Your task to perform on an android device: choose inbox layout in the gmail app Image 0: 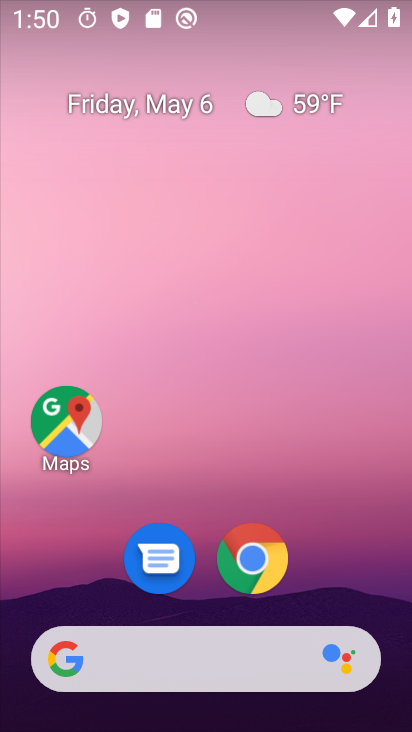
Step 0: drag from (179, 726) to (171, 211)
Your task to perform on an android device: choose inbox layout in the gmail app Image 1: 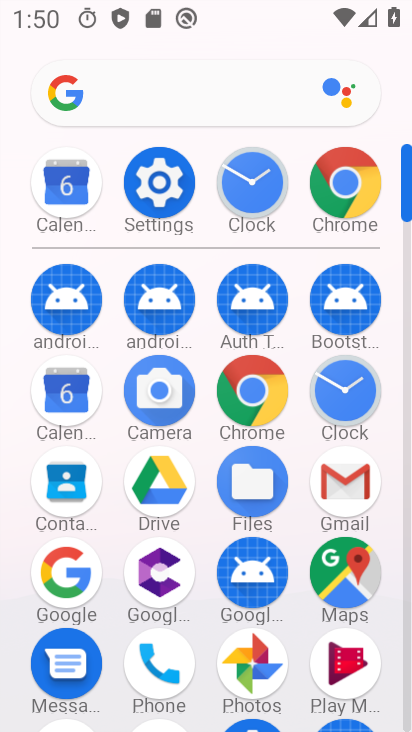
Step 1: click (343, 469)
Your task to perform on an android device: choose inbox layout in the gmail app Image 2: 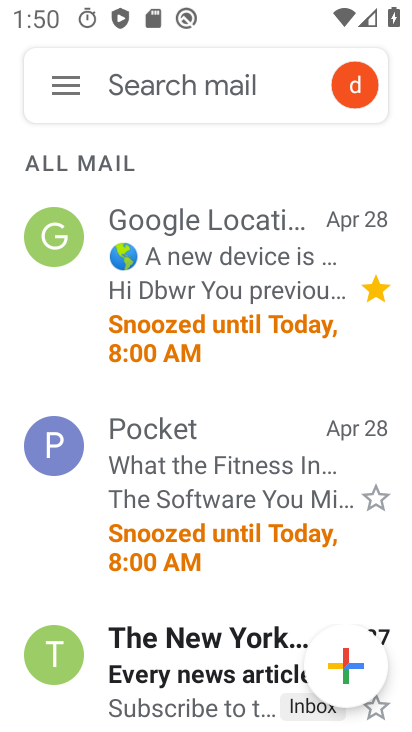
Step 2: click (68, 87)
Your task to perform on an android device: choose inbox layout in the gmail app Image 3: 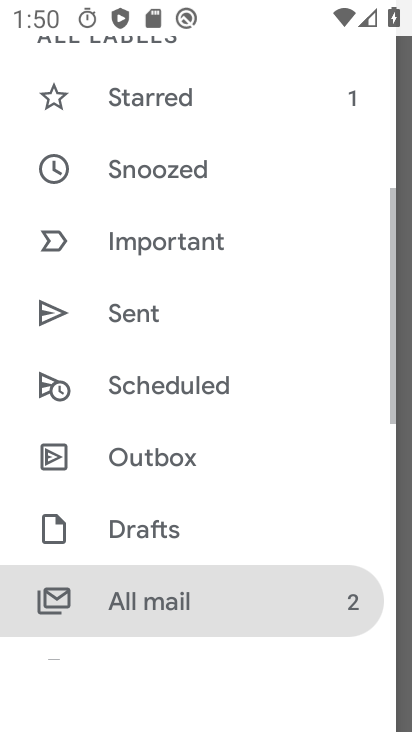
Step 3: drag from (148, 624) to (152, 186)
Your task to perform on an android device: choose inbox layout in the gmail app Image 4: 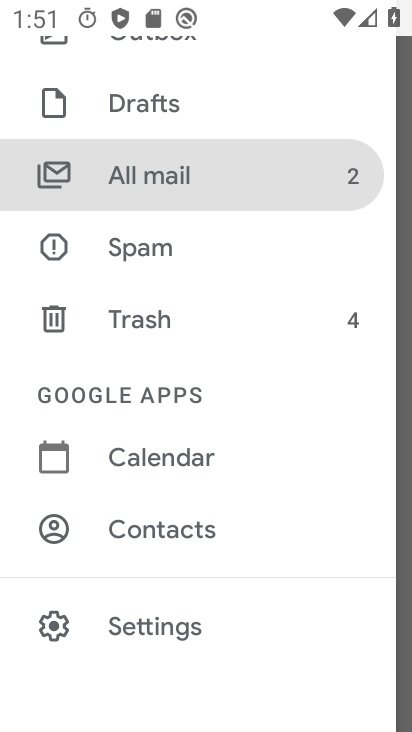
Step 4: click (160, 626)
Your task to perform on an android device: choose inbox layout in the gmail app Image 5: 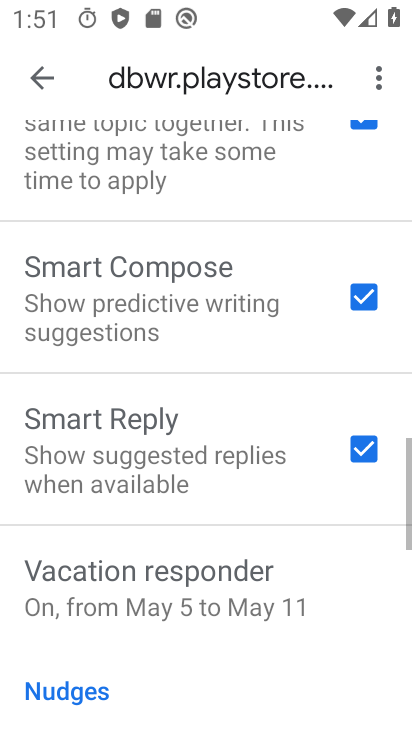
Step 5: drag from (137, 161) to (137, 572)
Your task to perform on an android device: choose inbox layout in the gmail app Image 6: 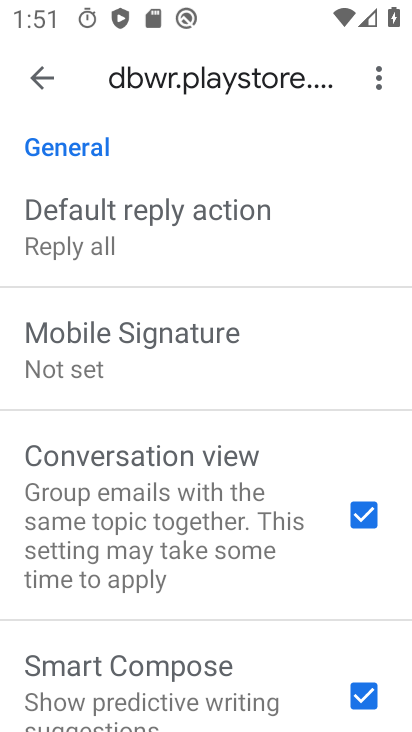
Step 6: drag from (131, 167) to (131, 608)
Your task to perform on an android device: choose inbox layout in the gmail app Image 7: 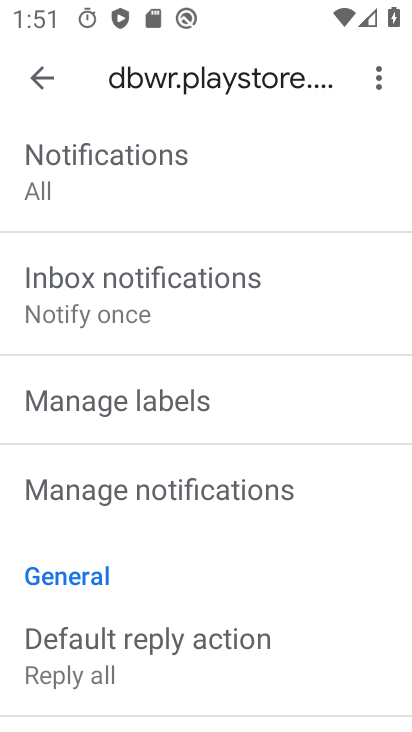
Step 7: drag from (152, 162) to (161, 637)
Your task to perform on an android device: choose inbox layout in the gmail app Image 8: 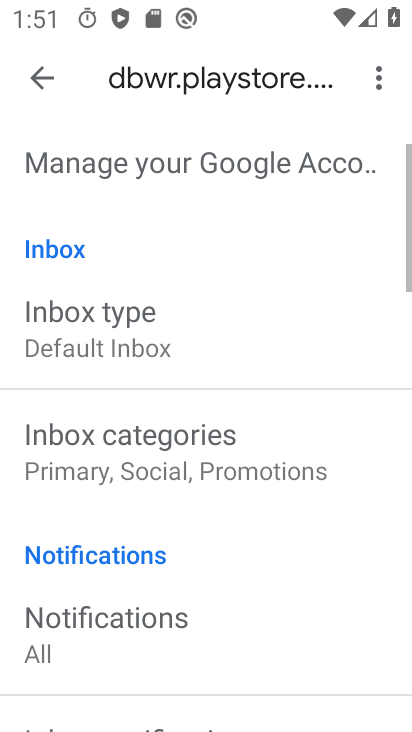
Step 8: drag from (186, 141) to (178, 561)
Your task to perform on an android device: choose inbox layout in the gmail app Image 9: 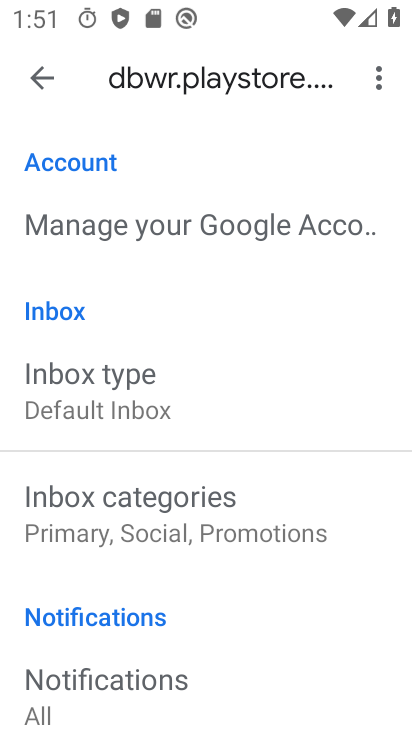
Step 9: drag from (139, 667) to (143, 527)
Your task to perform on an android device: choose inbox layout in the gmail app Image 10: 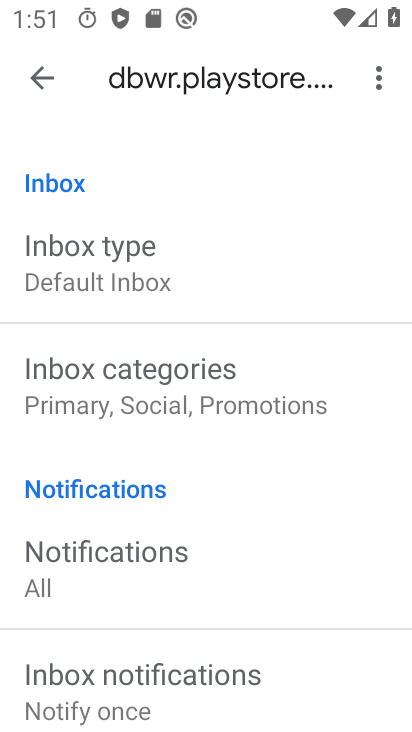
Step 10: click (114, 250)
Your task to perform on an android device: choose inbox layout in the gmail app Image 11: 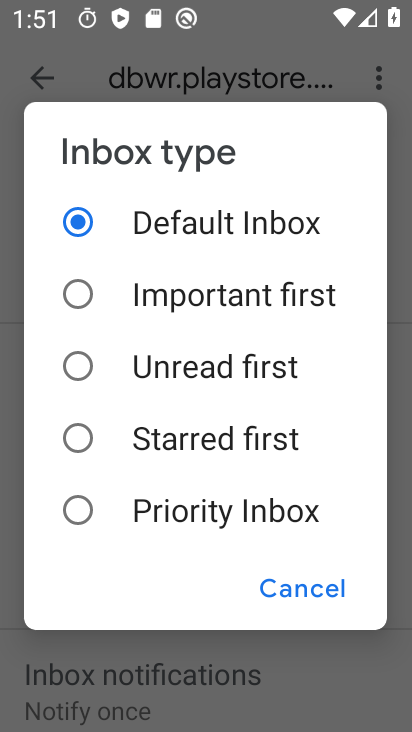
Step 11: click (83, 302)
Your task to perform on an android device: choose inbox layout in the gmail app Image 12: 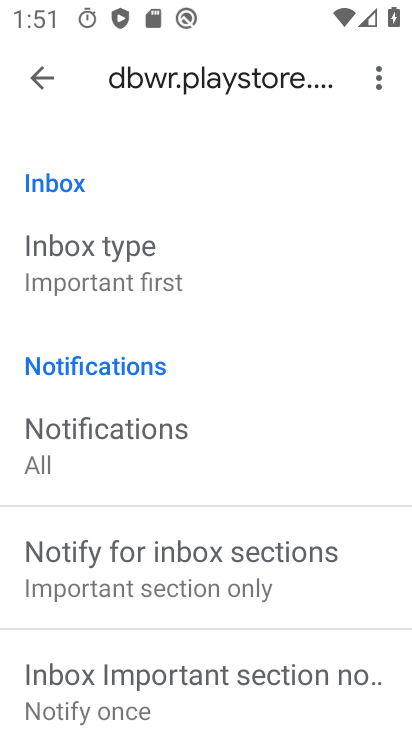
Step 12: task complete